Your task to perform on an android device: check battery use Image 0: 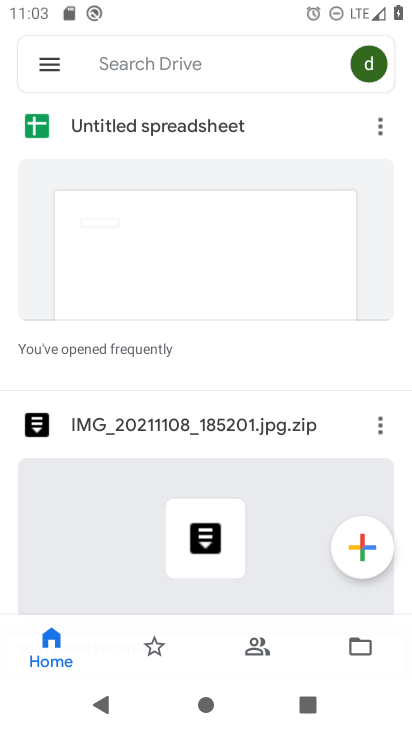
Step 0: press home button
Your task to perform on an android device: check battery use Image 1: 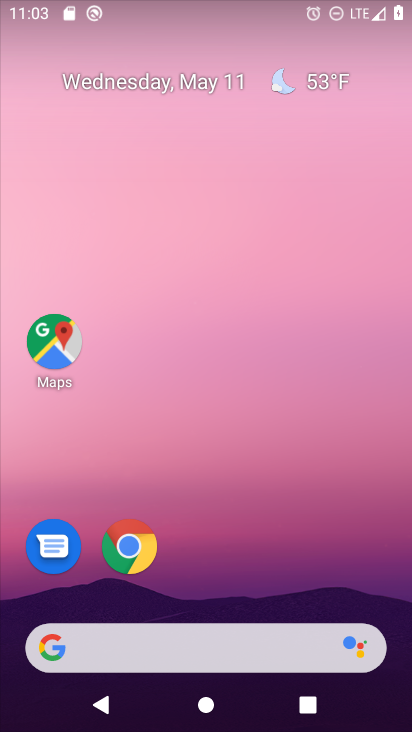
Step 1: drag from (396, 633) to (149, 38)
Your task to perform on an android device: check battery use Image 2: 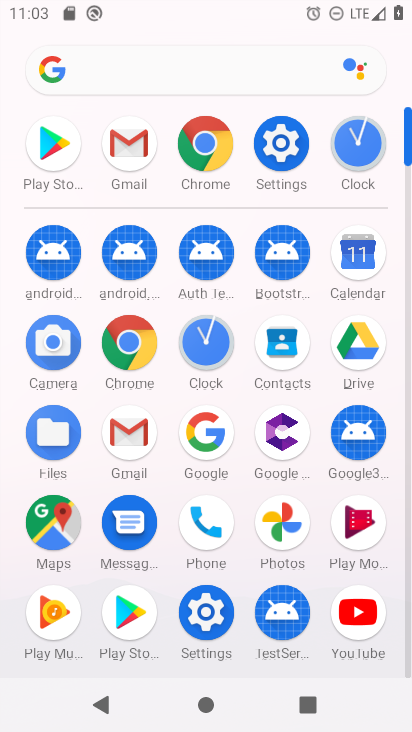
Step 2: click (220, 615)
Your task to perform on an android device: check battery use Image 3: 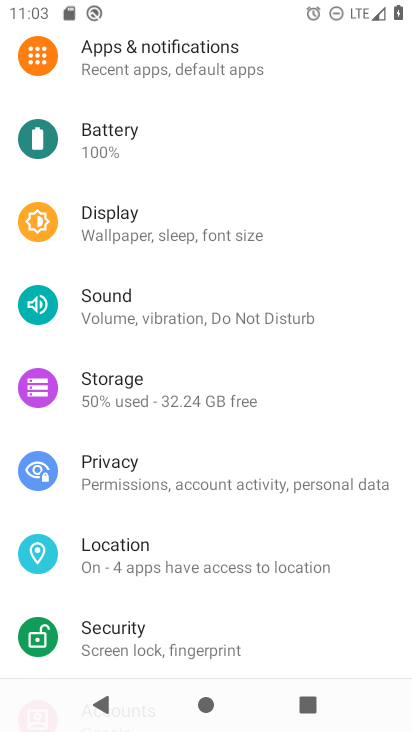
Step 3: click (161, 153)
Your task to perform on an android device: check battery use Image 4: 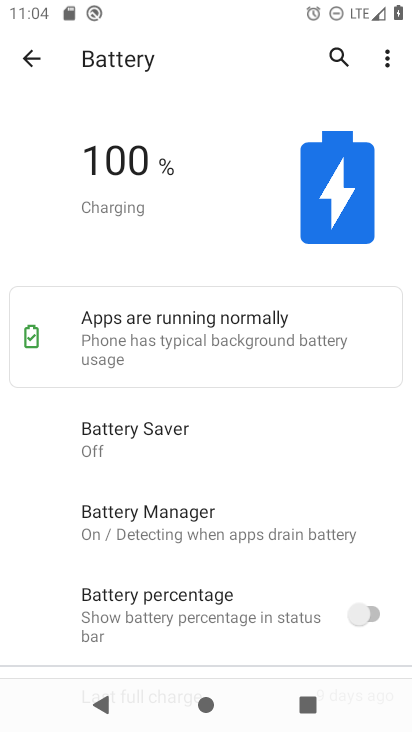
Step 4: task complete